Your task to perform on an android device: Go to notification settings Image 0: 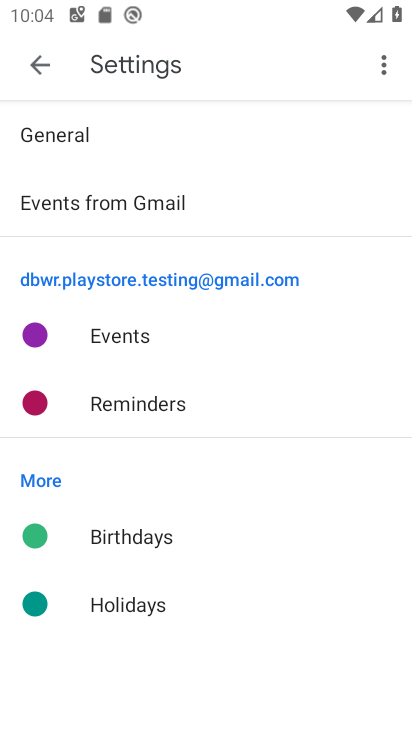
Step 0: press home button
Your task to perform on an android device: Go to notification settings Image 1: 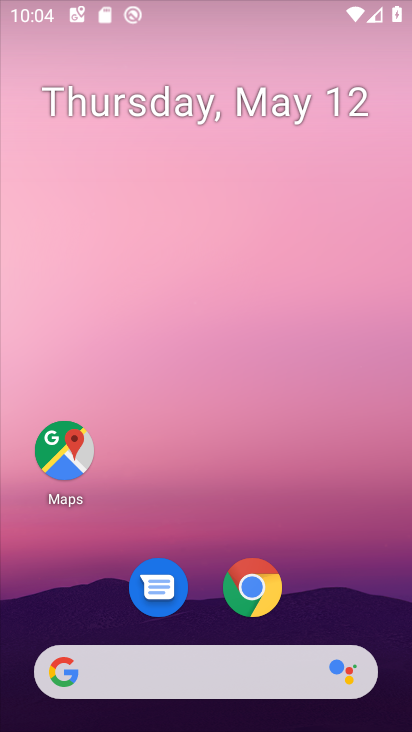
Step 1: drag from (354, 625) to (267, 94)
Your task to perform on an android device: Go to notification settings Image 2: 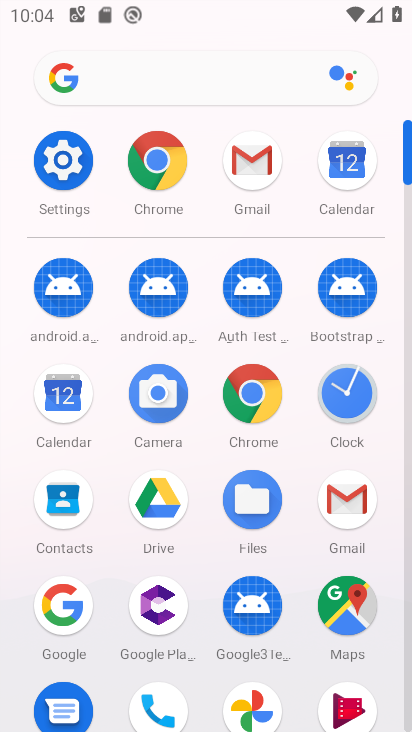
Step 2: click (65, 161)
Your task to perform on an android device: Go to notification settings Image 3: 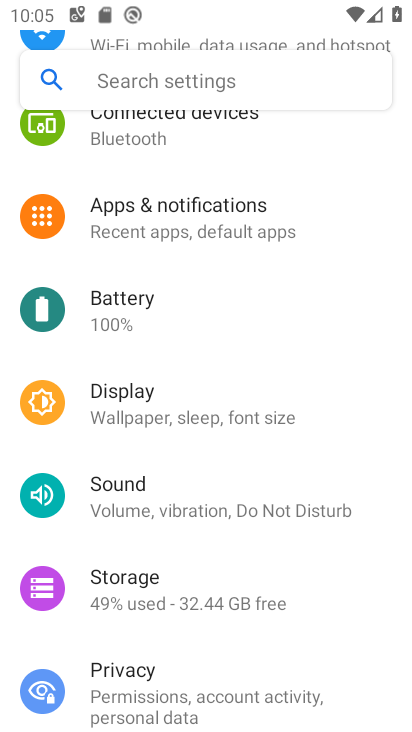
Step 3: click (190, 230)
Your task to perform on an android device: Go to notification settings Image 4: 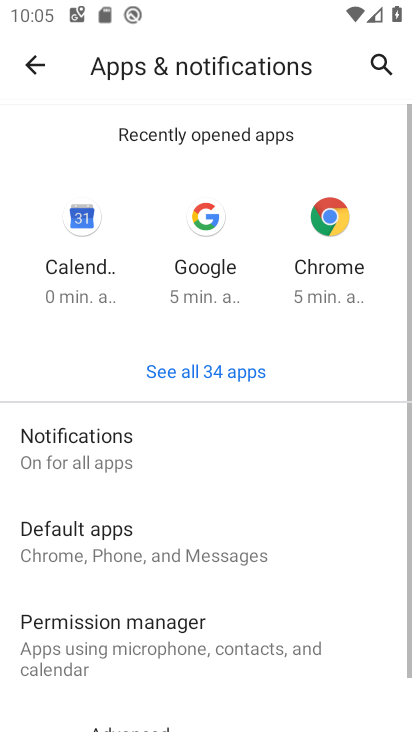
Step 4: click (141, 458)
Your task to perform on an android device: Go to notification settings Image 5: 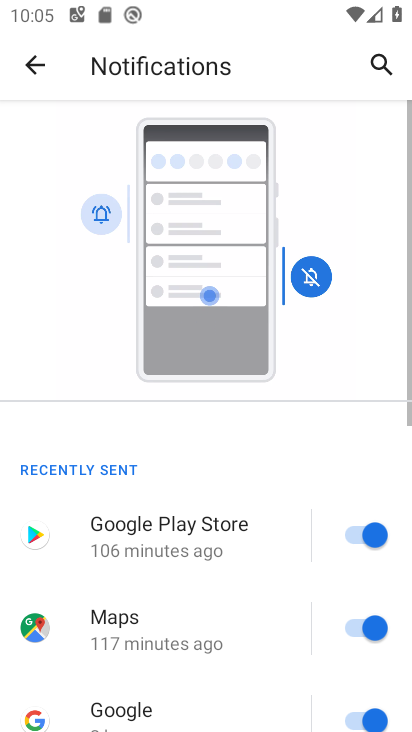
Step 5: task complete